Your task to perform on an android device: check storage Image 0: 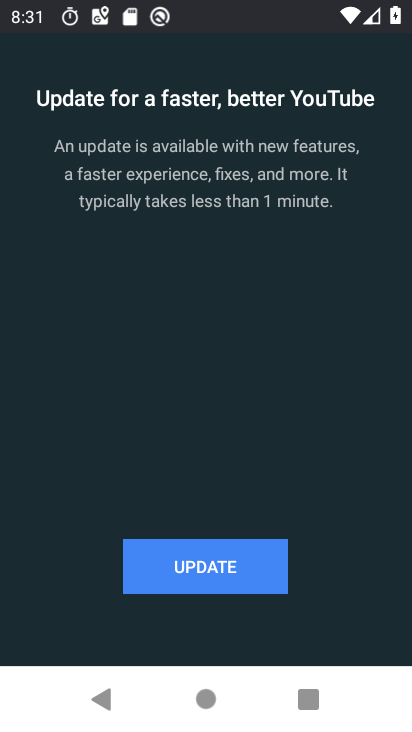
Step 0: press home button
Your task to perform on an android device: check storage Image 1: 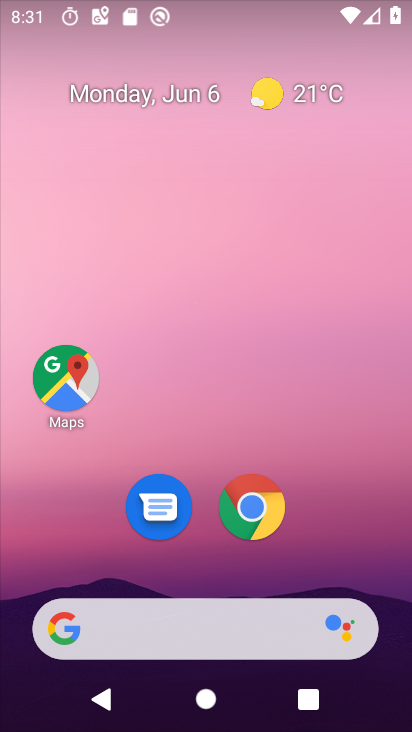
Step 1: drag from (361, 584) to (328, 46)
Your task to perform on an android device: check storage Image 2: 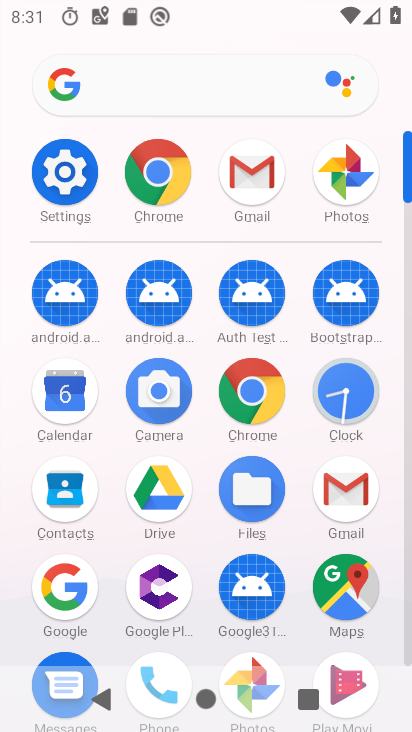
Step 2: click (62, 174)
Your task to perform on an android device: check storage Image 3: 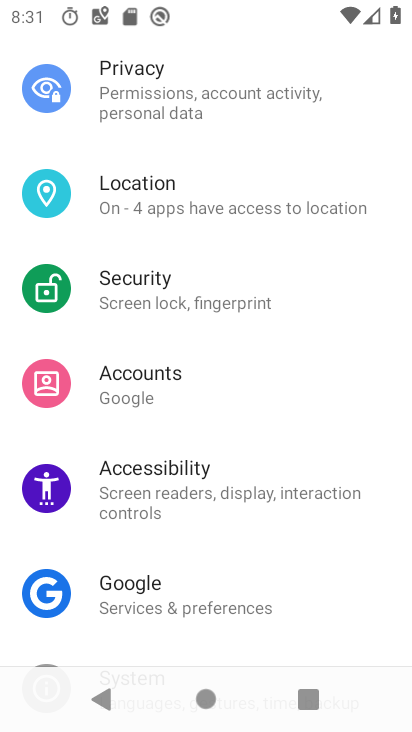
Step 3: drag from (166, 624) to (136, 727)
Your task to perform on an android device: check storage Image 4: 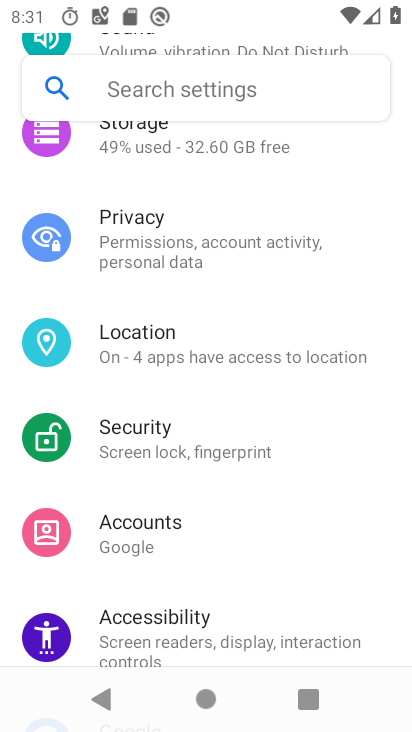
Step 4: drag from (259, 300) to (239, 666)
Your task to perform on an android device: check storage Image 5: 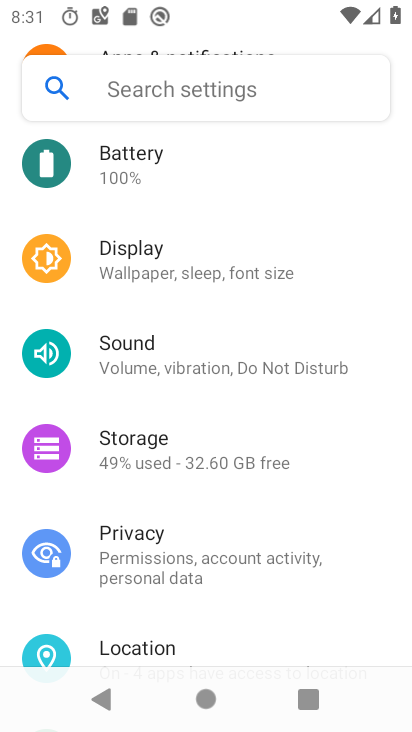
Step 5: click (157, 453)
Your task to perform on an android device: check storage Image 6: 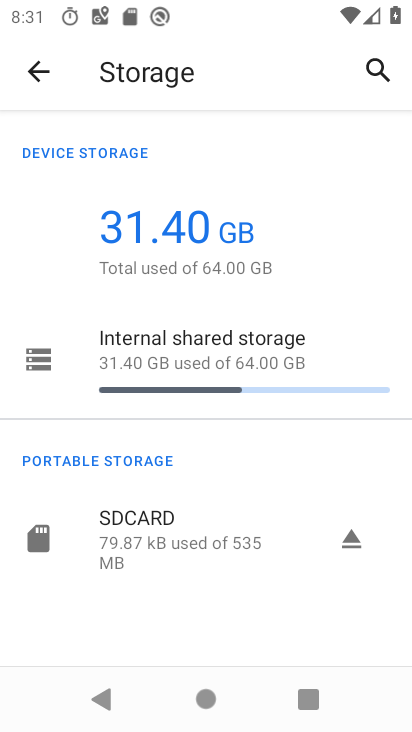
Step 6: task complete